Your task to perform on an android device: check out phone information Image 0: 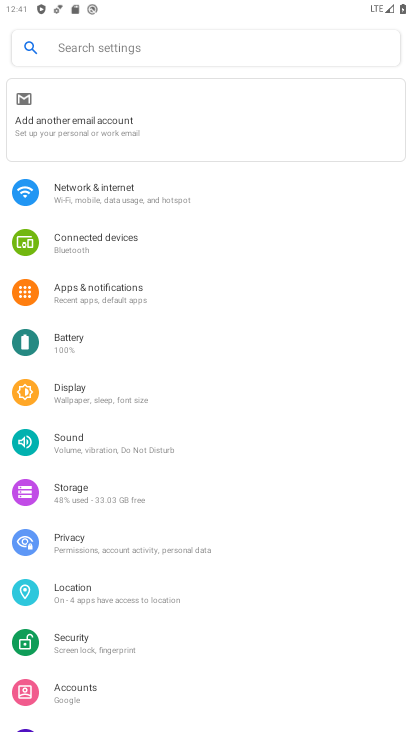
Step 0: press home button
Your task to perform on an android device: check out phone information Image 1: 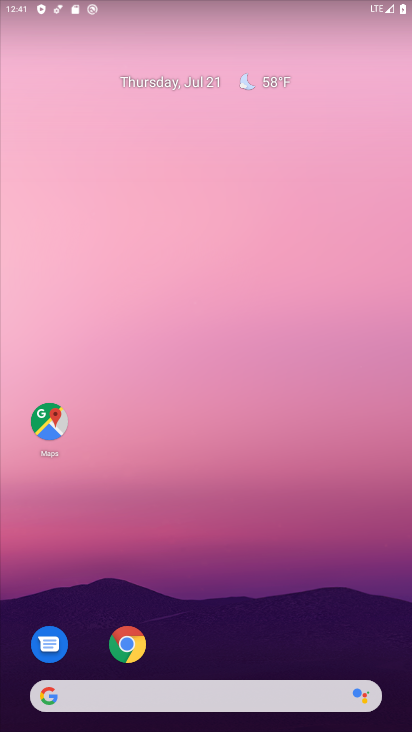
Step 1: drag from (347, 585) to (353, 70)
Your task to perform on an android device: check out phone information Image 2: 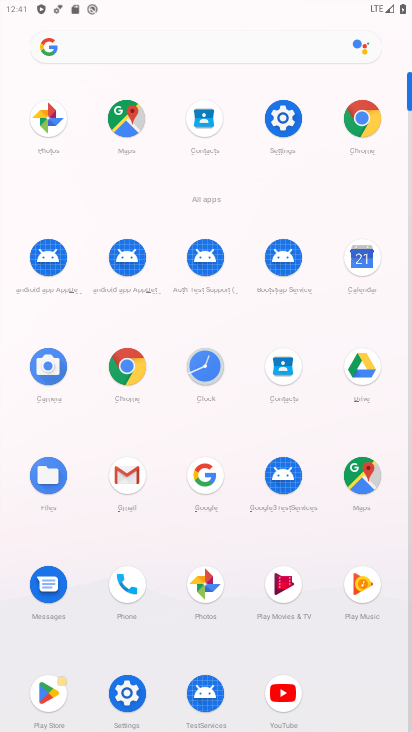
Step 2: click (128, 588)
Your task to perform on an android device: check out phone information Image 3: 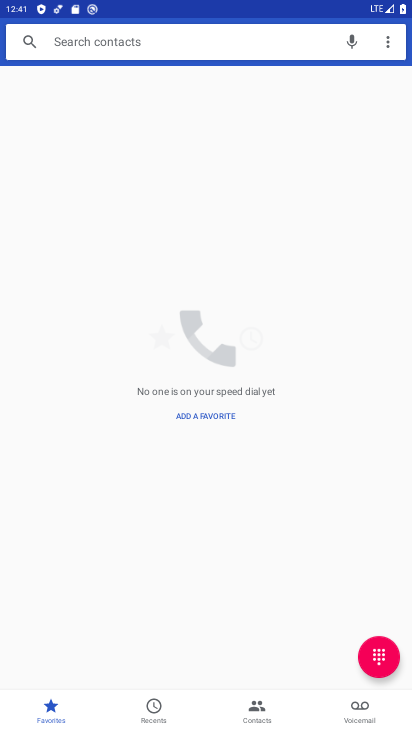
Step 3: task complete